Your task to perform on an android device: turn notification dots on Image 0: 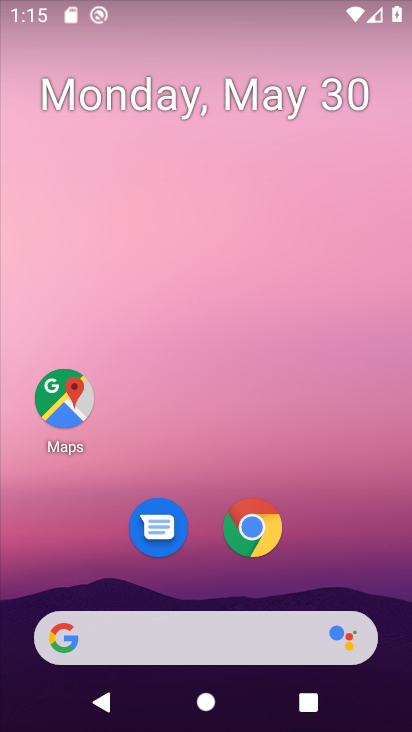
Step 0: drag from (72, 615) to (175, 197)
Your task to perform on an android device: turn notification dots on Image 1: 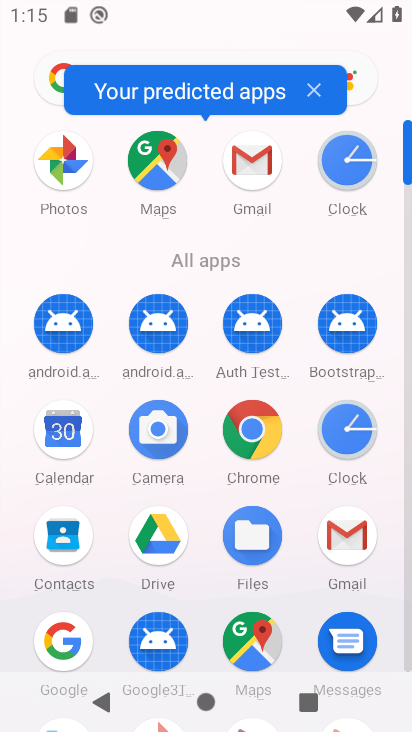
Step 1: drag from (169, 596) to (238, 257)
Your task to perform on an android device: turn notification dots on Image 2: 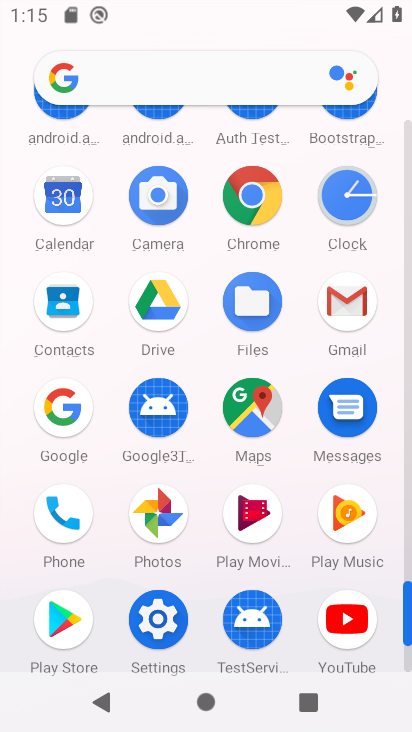
Step 2: click (174, 631)
Your task to perform on an android device: turn notification dots on Image 3: 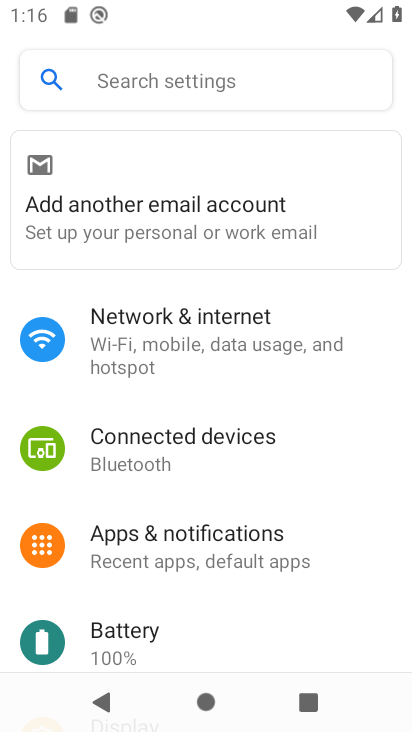
Step 3: click (220, 555)
Your task to perform on an android device: turn notification dots on Image 4: 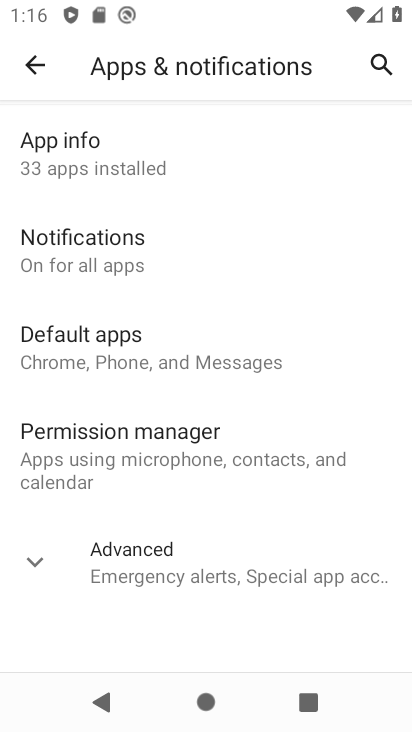
Step 4: click (183, 576)
Your task to perform on an android device: turn notification dots on Image 5: 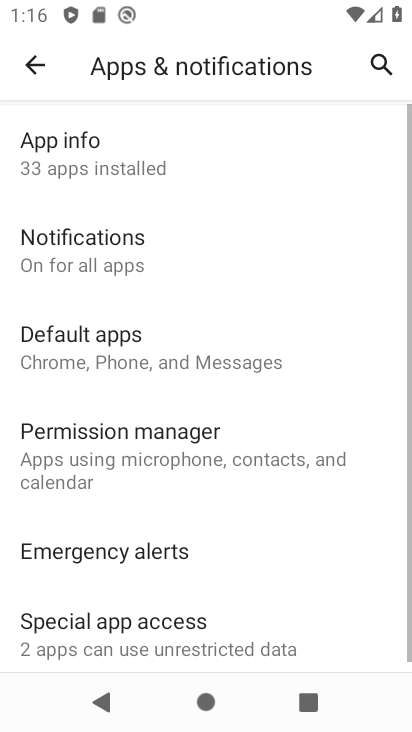
Step 5: click (174, 266)
Your task to perform on an android device: turn notification dots on Image 6: 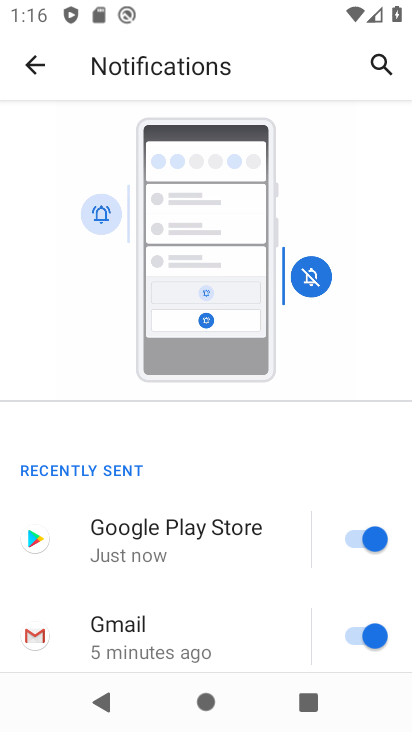
Step 6: drag from (185, 616) to (303, 104)
Your task to perform on an android device: turn notification dots on Image 7: 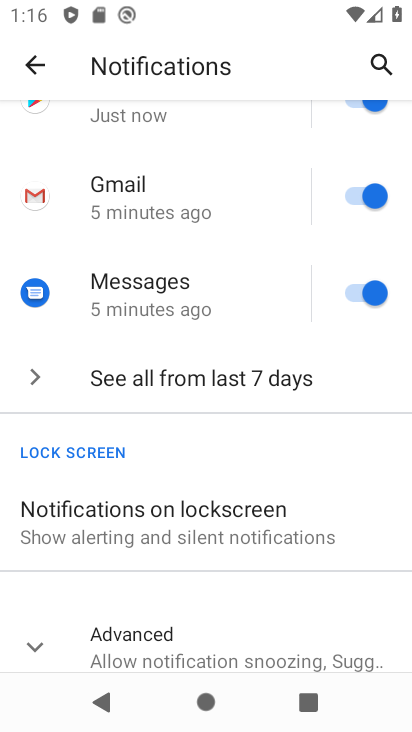
Step 7: drag from (151, 590) to (257, 323)
Your task to perform on an android device: turn notification dots on Image 8: 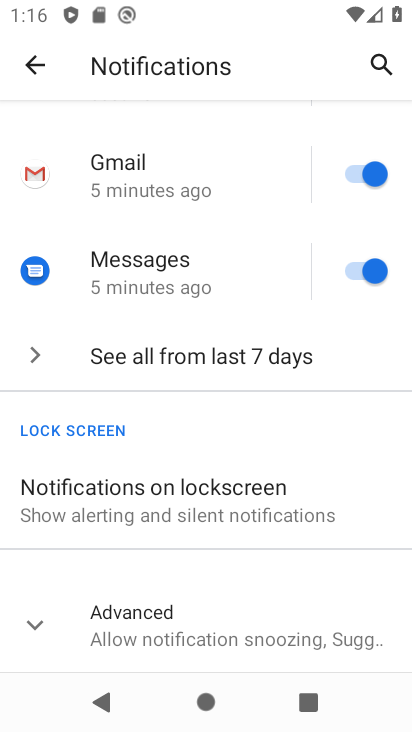
Step 8: click (207, 633)
Your task to perform on an android device: turn notification dots on Image 9: 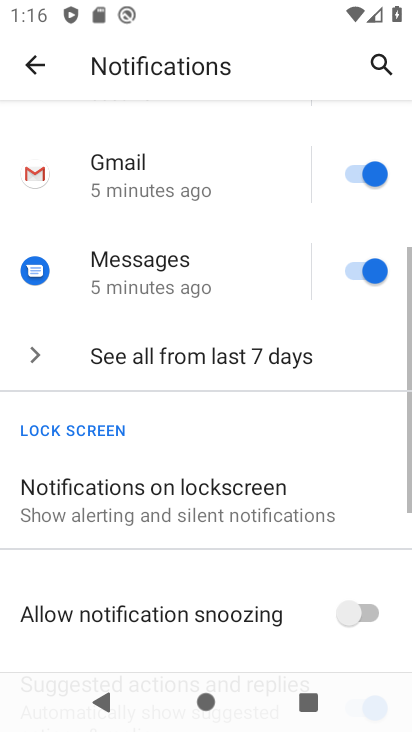
Step 9: drag from (198, 650) to (307, 180)
Your task to perform on an android device: turn notification dots on Image 10: 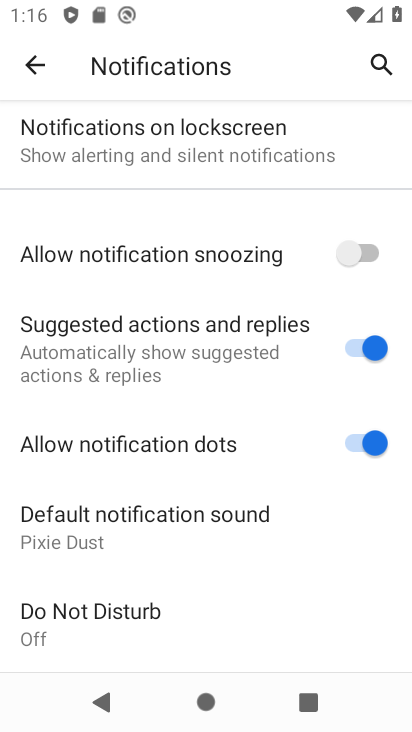
Step 10: click (358, 427)
Your task to perform on an android device: turn notification dots on Image 11: 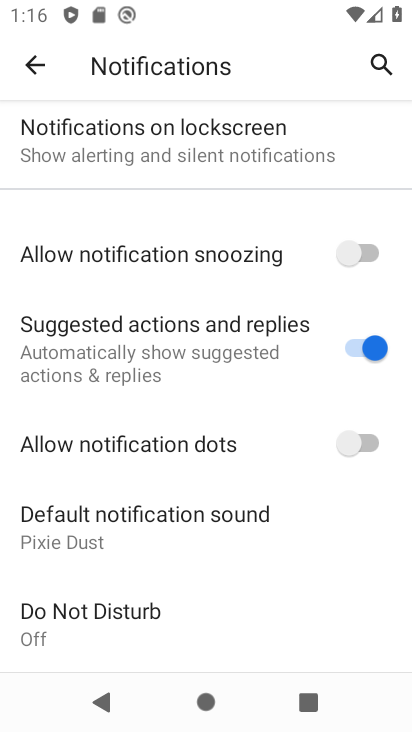
Step 11: task complete